Your task to perform on an android device: What's on my calendar tomorrow? Image 0: 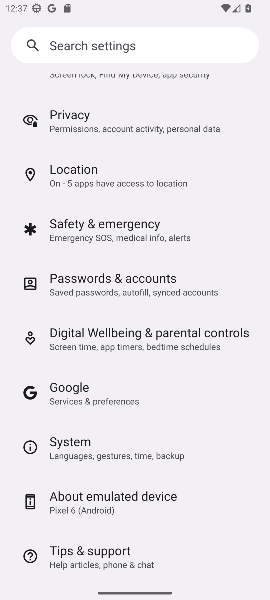
Step 0: press home button
Your task to perform on an android device: What's on my calendar tomorrow? Image 1: 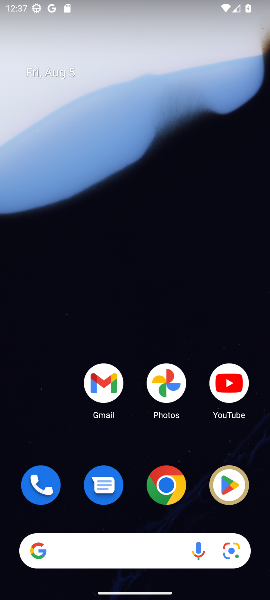
Step 1: drag from (45, 428) to (60, 112)
Your task to perform on an android device: What's on my calendar tomorrow? Image 2: 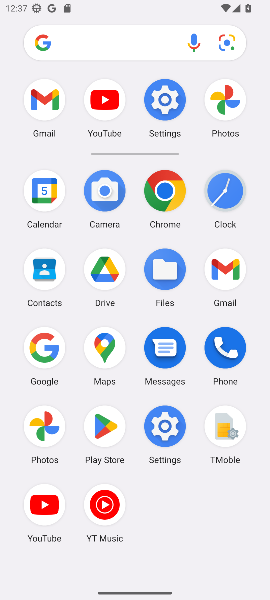
Step 2: click (55, 189)
Your task to perform on an android device: What's on my calendar tomorrow? Image 3: 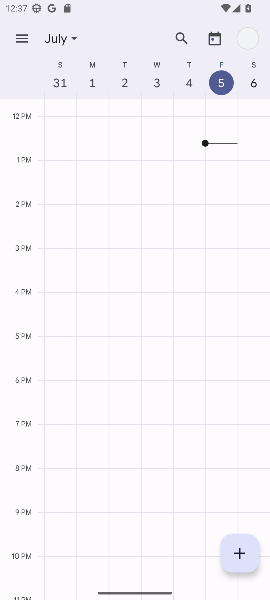
Step 3: click (76, 35)
Your task to perform on an android device: What's on my calendar tomorrow? Image 4: 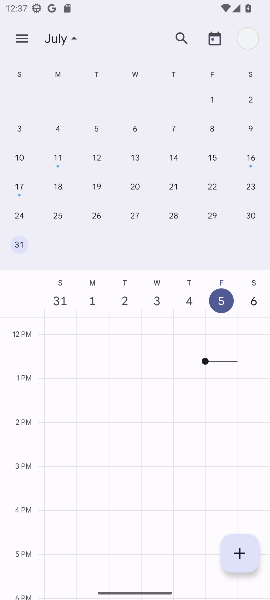
Step 4: drag from (240, 155) to (12, 124)
Your task to perform on an android device: What's on my calendar tomorrow? Image 5: 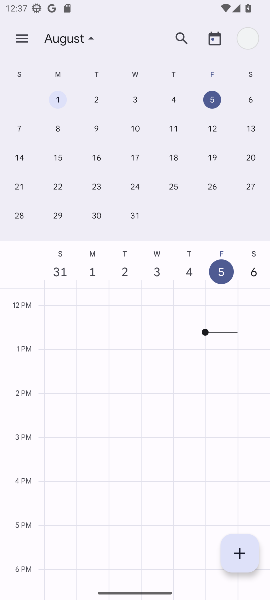
Step 5: click (246, 97)
Your task to perform on an android device: What's on my calendar tomorrow? Image 6: 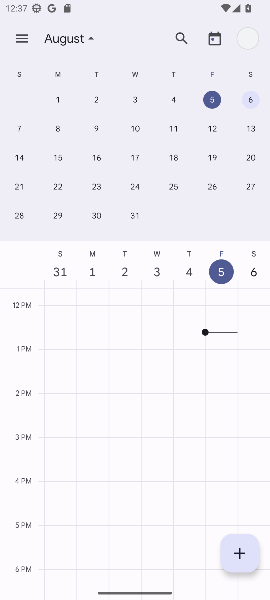
Step 6: click (252, 96)
Your task to perform on an android device: What's on my calendar tomorrow? Image 7: 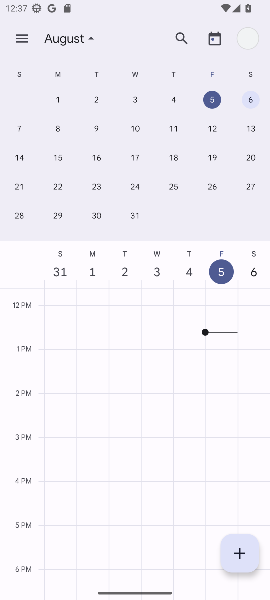
Step 7: click (251, 265)
Your task to perform on an android device: What's on my calendar tomorrow? Image 8: 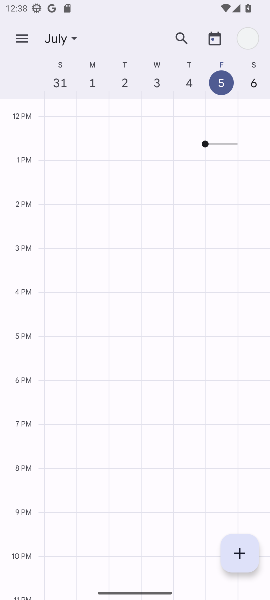
Step 8: click (255, 79)
Your task to perform on an android device: What's on my calendar tomorrow? Image 9: 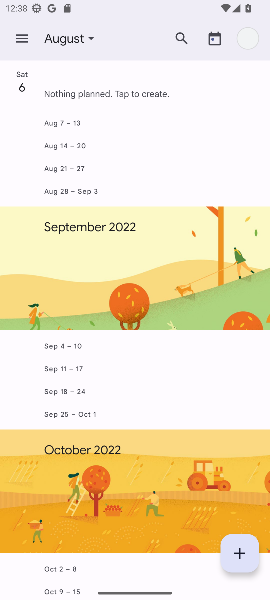
Step 9: task complete